Your task to perform on an android device: turn off priority inbox in the gmail app Image 0: 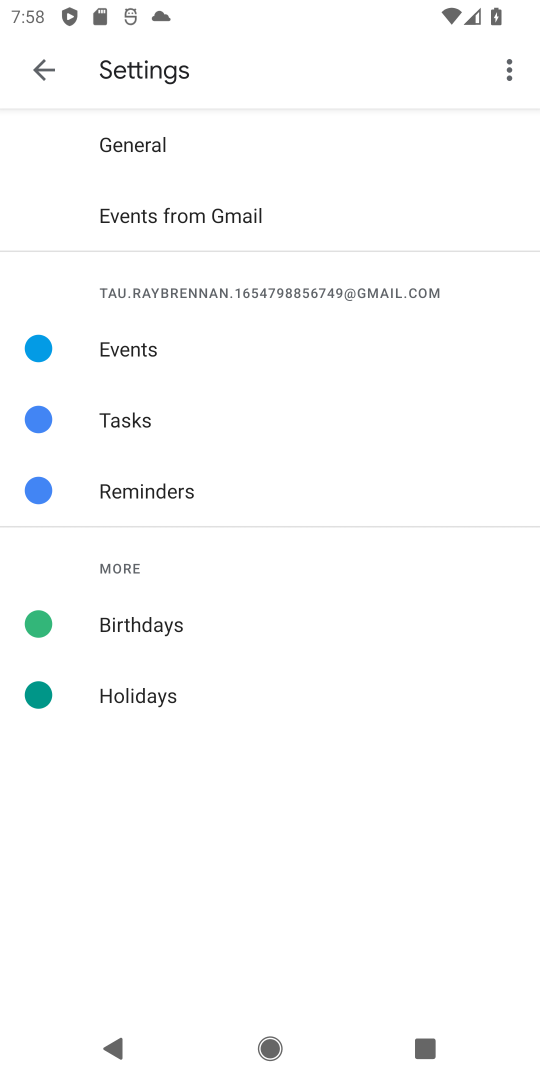
Step 0: press home button
Your task to perform on an android device: turn off priority inbox in the gmail app Image 1: 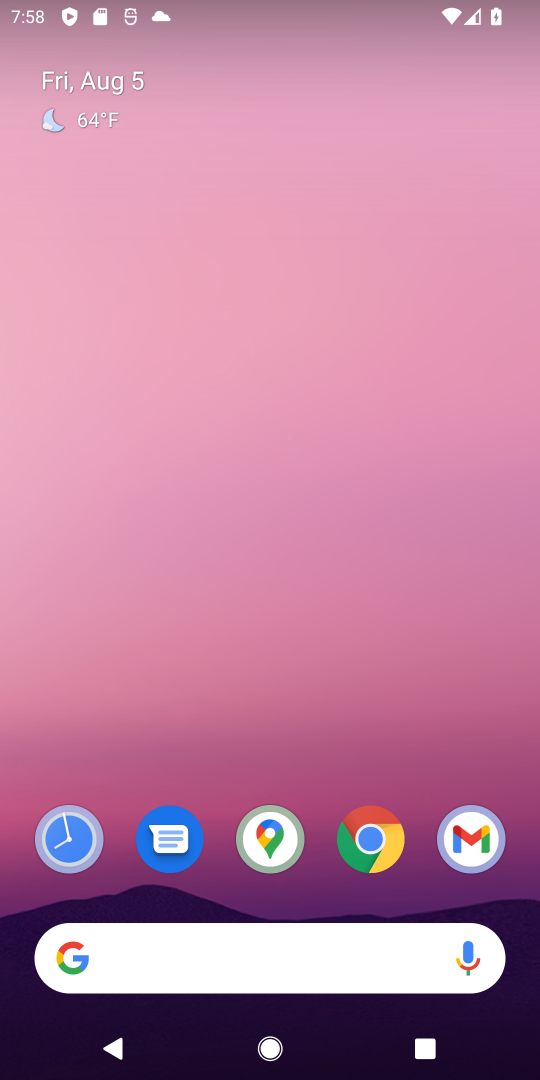
Step 1: drag from (350, 741) to (302, 244)
Your task to perform on an android device: turn off priority inbox in the gmail app Image 2: 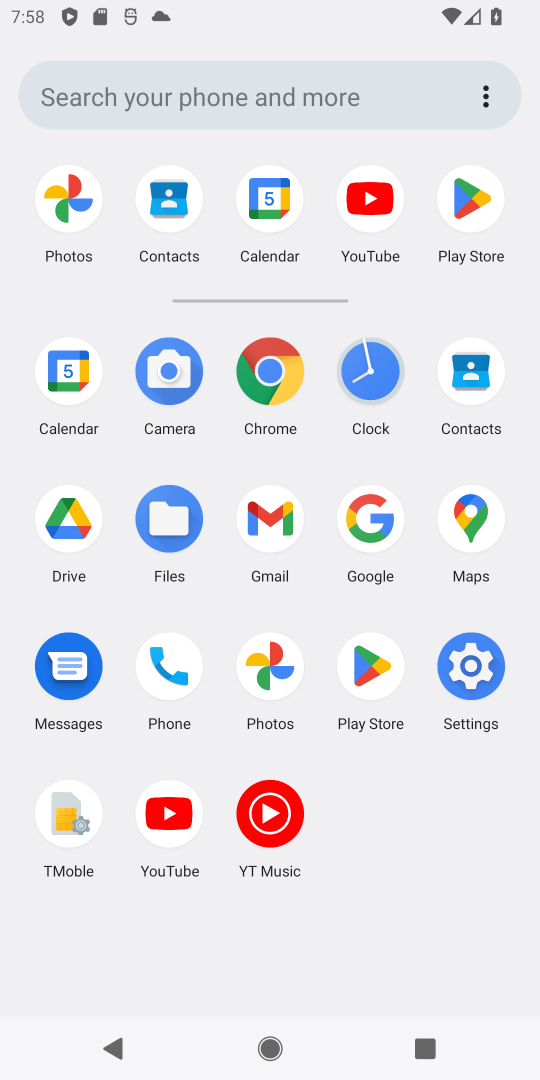
Step 2: click (272, 531)
Your task to perform on an android device: turn off priority inbox in the gmail app Image 3: 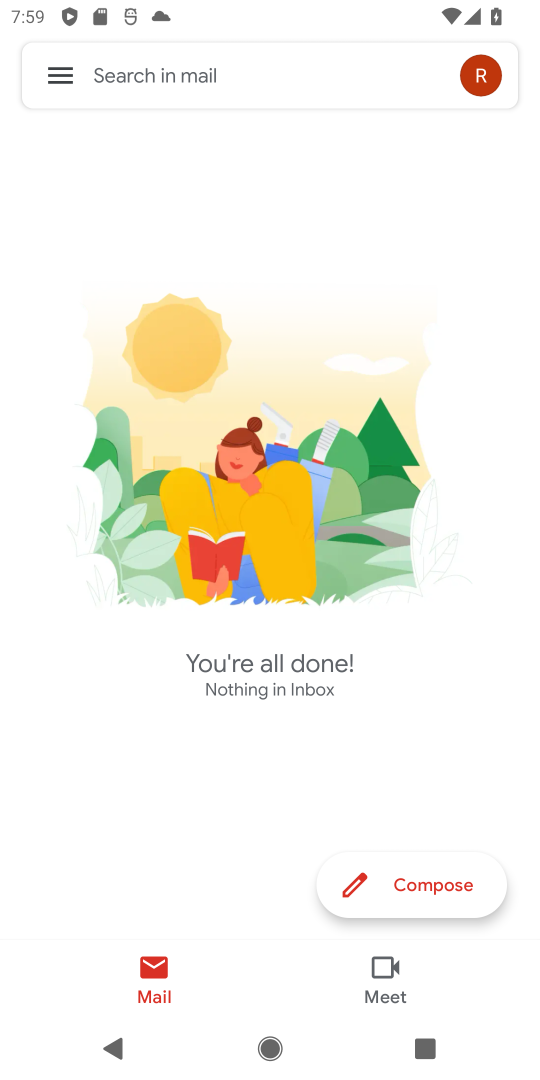
Step 3: click (60, 73)
Your task to perform on an android device: turn off priority inbox in the gmail app Image 4: 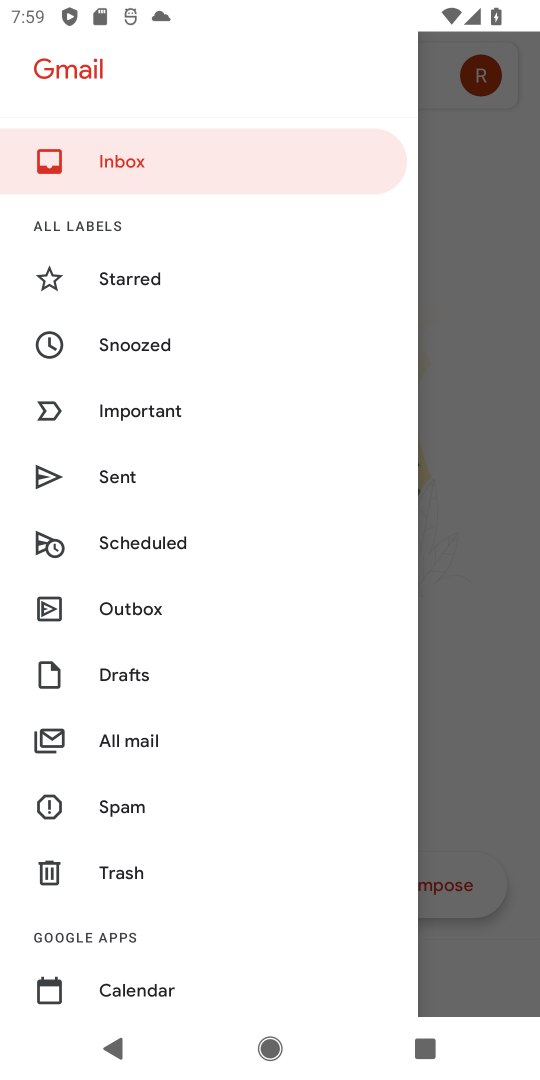
Step 4: drag from (69, 540) to (85, 463)
Your task to perform on an android device: turn off priority inbox in the gmail app Image 5: 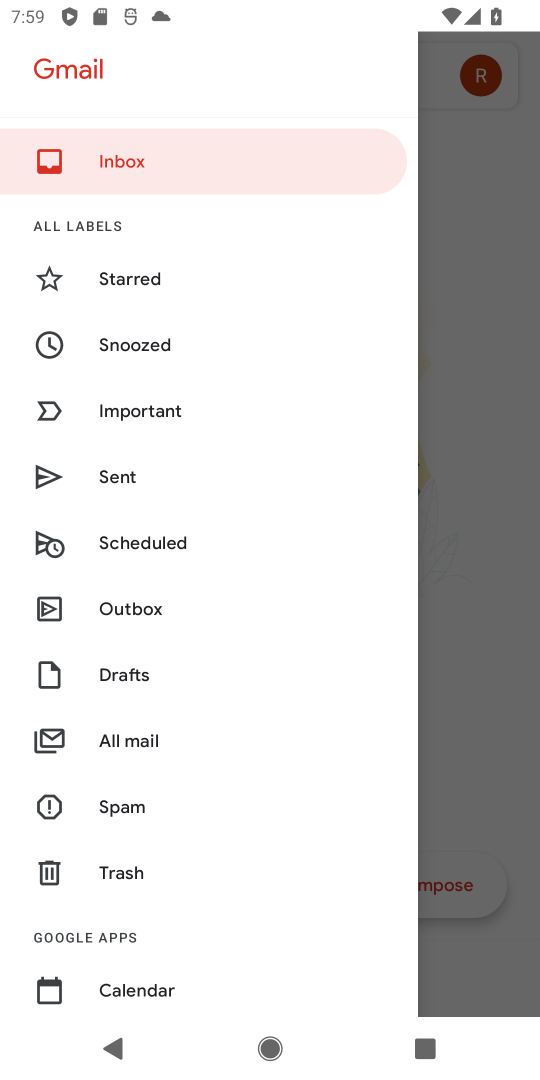
Step 5: drag from (142, 971) to (141, 470)
Your task to perform on an android device: turn off priority inbox in the gmail app Image 6: 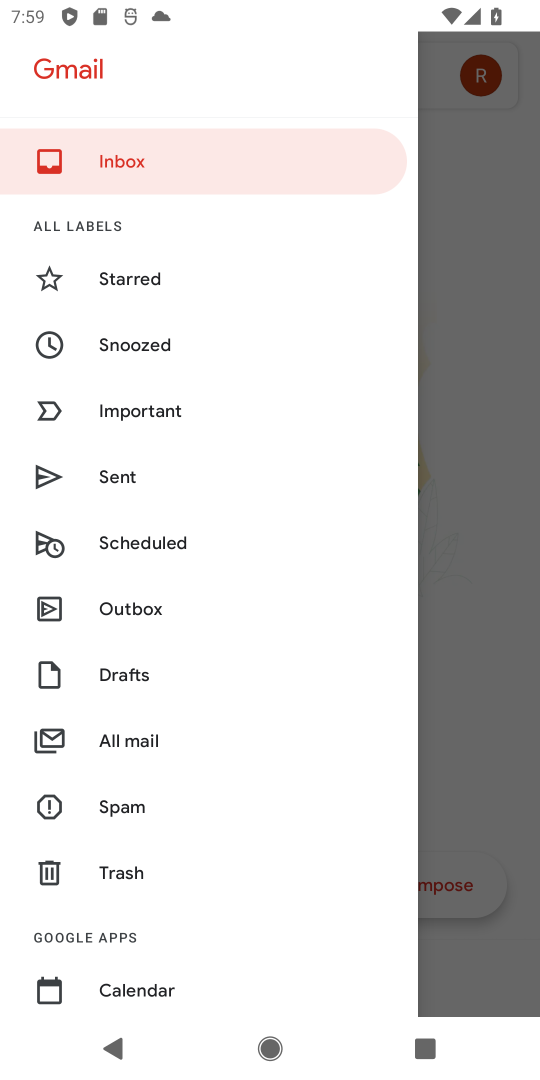
Step 6: drag from (156, 984) to (205, 693)
Your task to perform on an android device: turn off priority inbox in the gmail app Image 7: 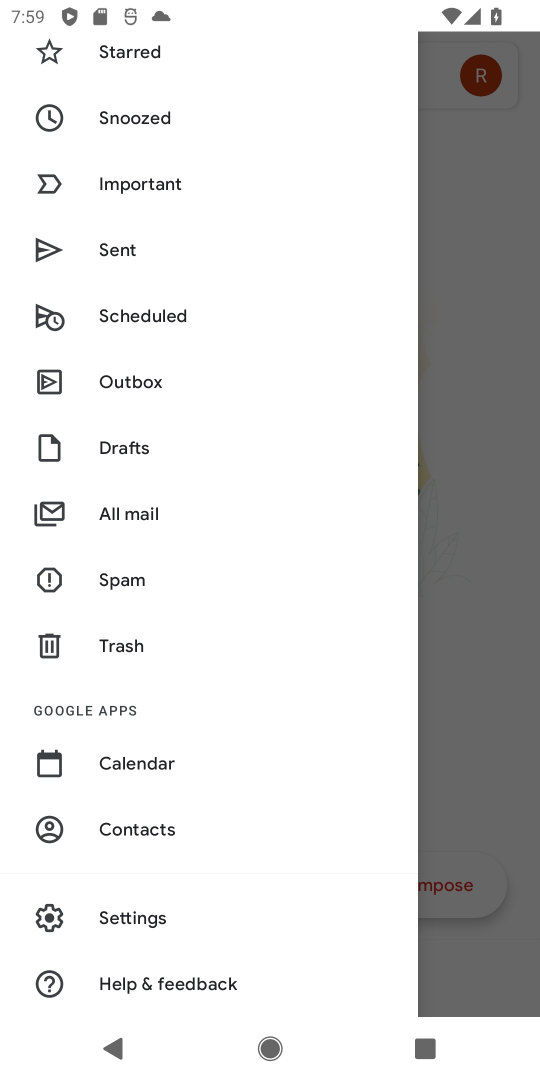
Step 7: click (125, 913)
Your task to perform on an android device: turn off priority inbox in the gmail app Image 8: 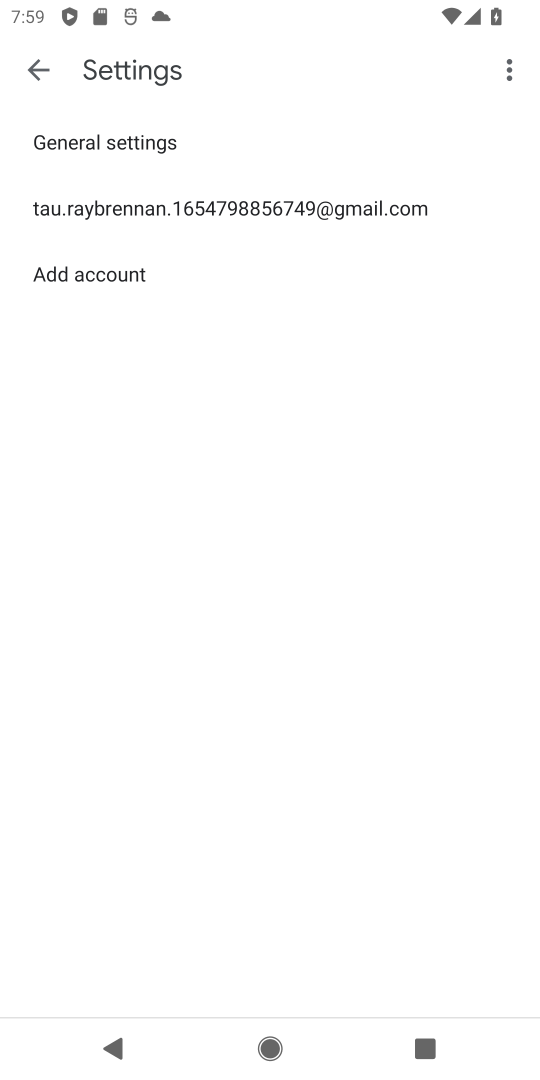
Step 8: click (146, 211)
Your task to perform on an android device: turn off priority inbox in the gmail app Image 9: 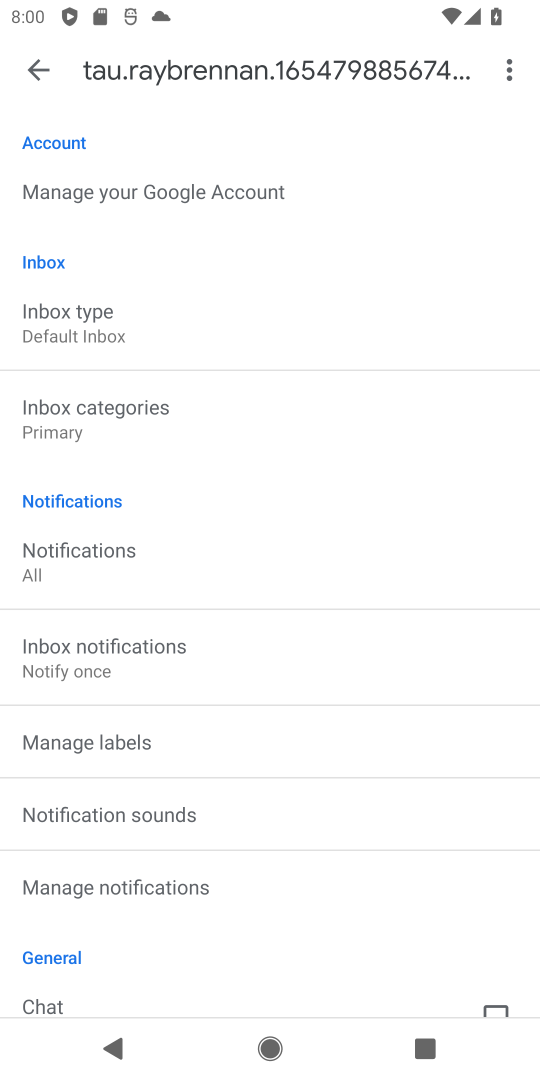
Step 9: task complete